Your task to perform on an android device: check out phone information Image 0: 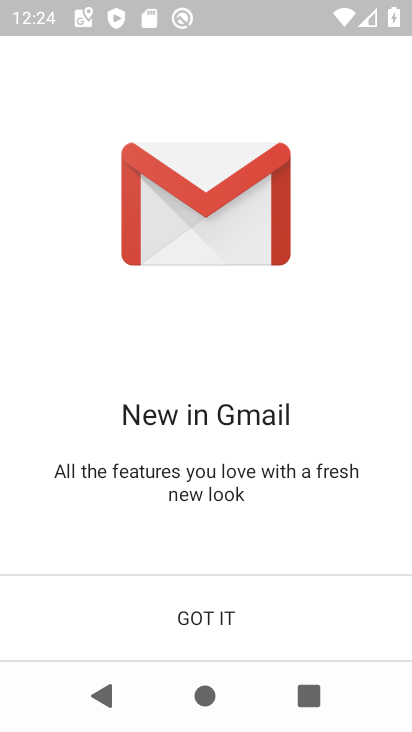
Step 0: press back button
Your task to perform on an android device: check out phone information Image 1: 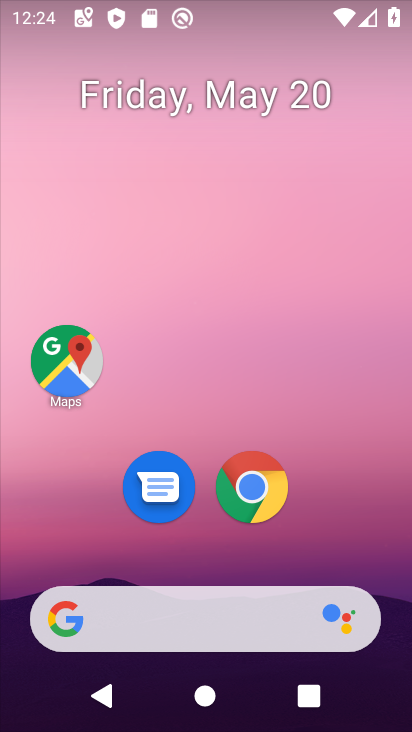
Step 1: drag from (204, 575) to (288, 39)
Your task to perform on an android device: check out phone information Image 2: 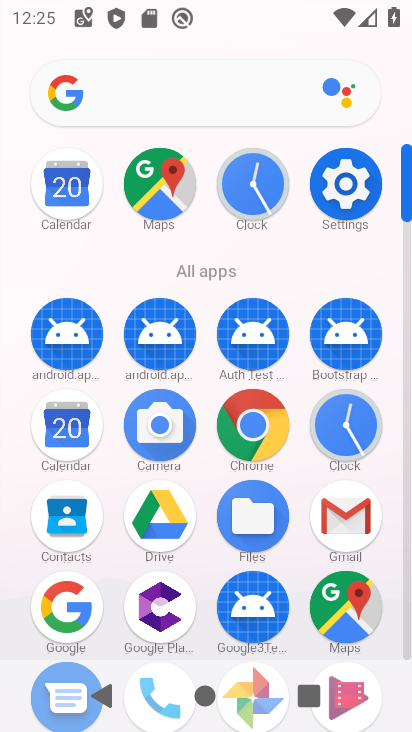
Step 2: click (351, 183)
Your task to perform on an android device: check out phone information Image 3: 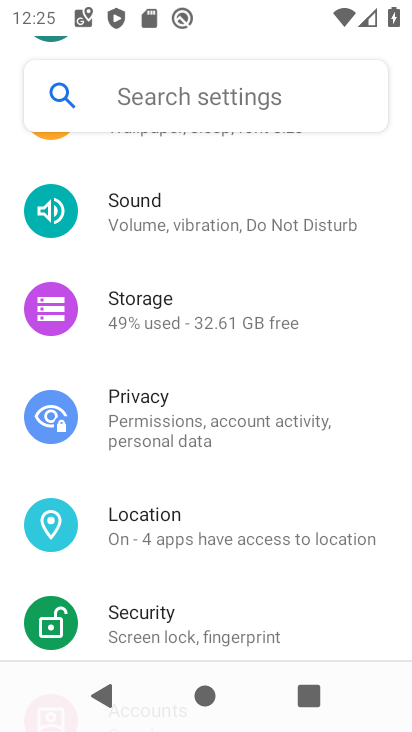
Step 3: drag from (178, 635) to (319, 46)
Your task to perform on an android device: check out phone information Image 4: 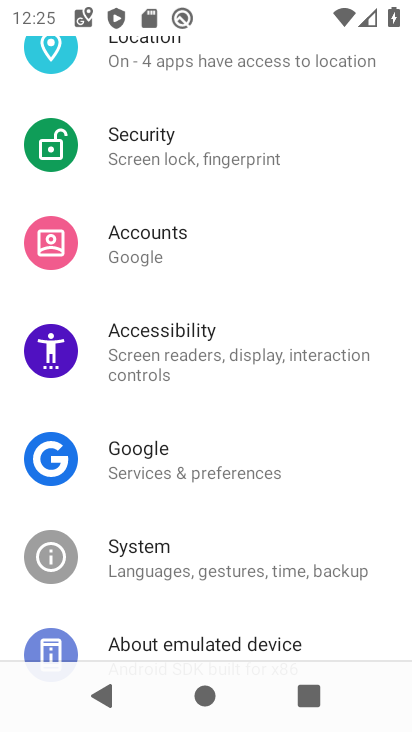
Step 4: drag from (192, 553) to (286, 17)
Your task to perform on an android device: check out phone information Image 5: 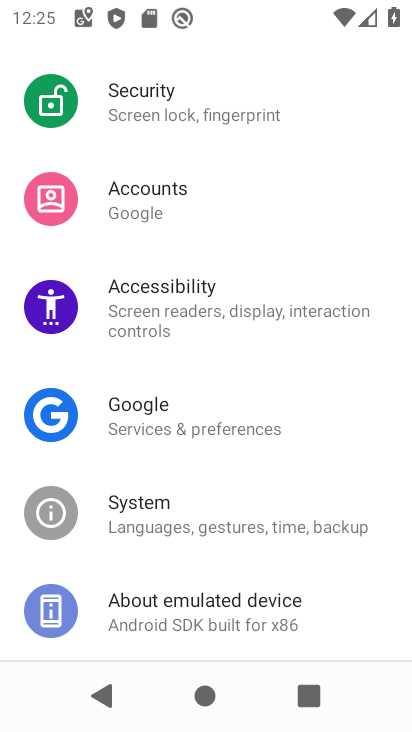
Step 5: click (156, 636)
Your task to perform on an android device: check out phone information Image 6: 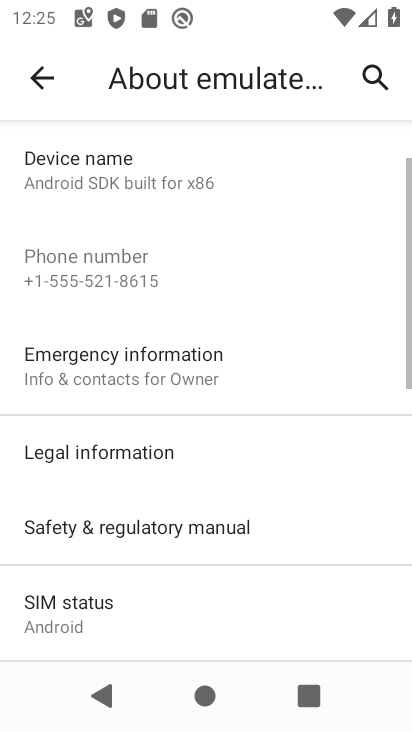
Step 6: task complete